Your task to perform on an android device: toggle show notifications on the lock screen Image 0: 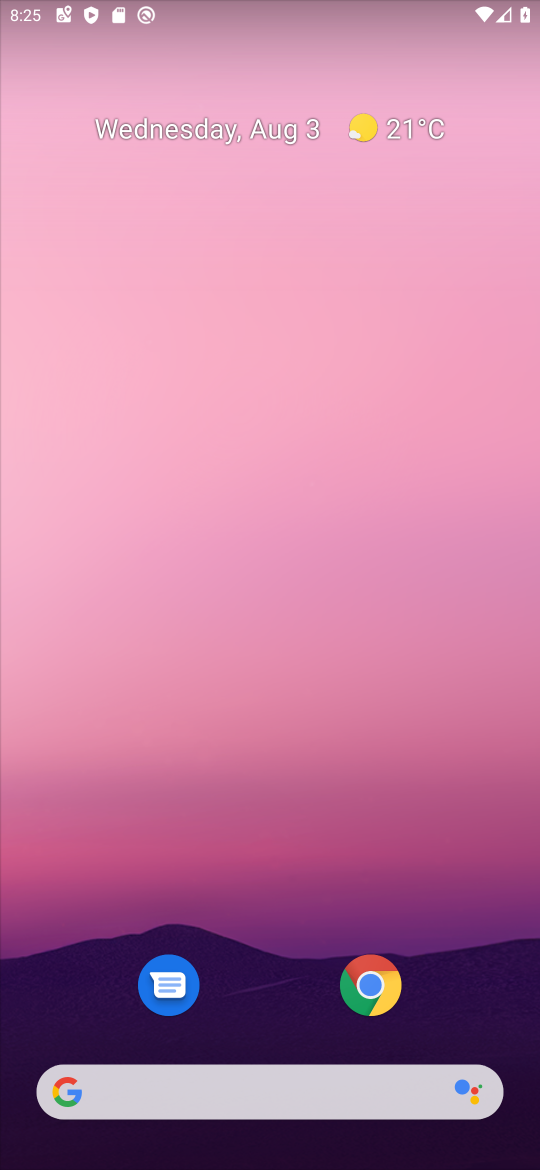
Step 0: drag from (263, 934) to (281, 434)
Your task to perform on an android device: toggle show notifications on the lock screen Image 1: 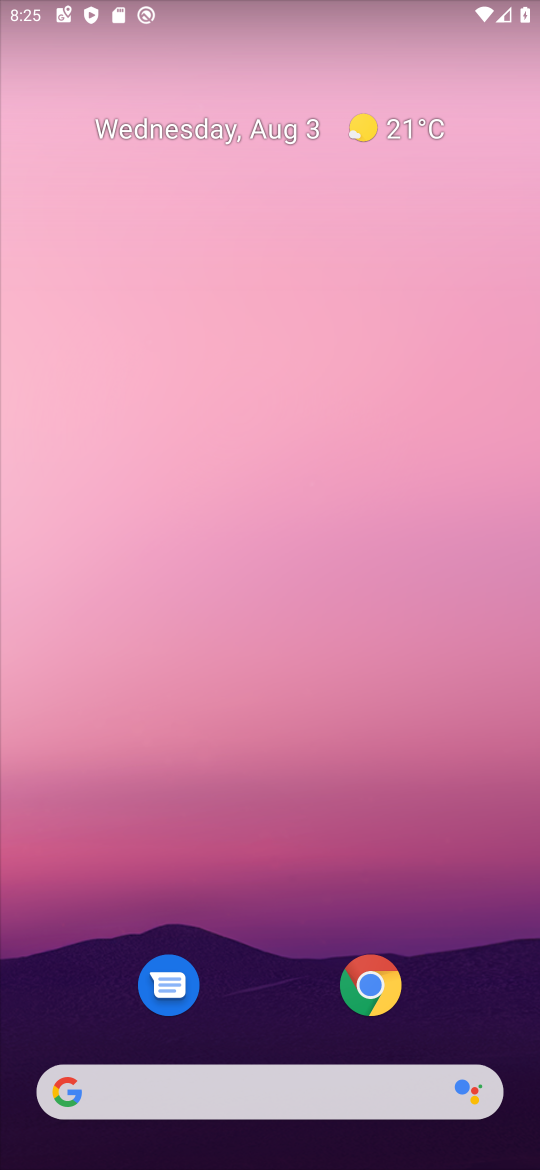
Step 1: drag from (255, 931) to (187, 81)
Your task to perform on an android device: toggle show notifications on the lock screen Image 2: 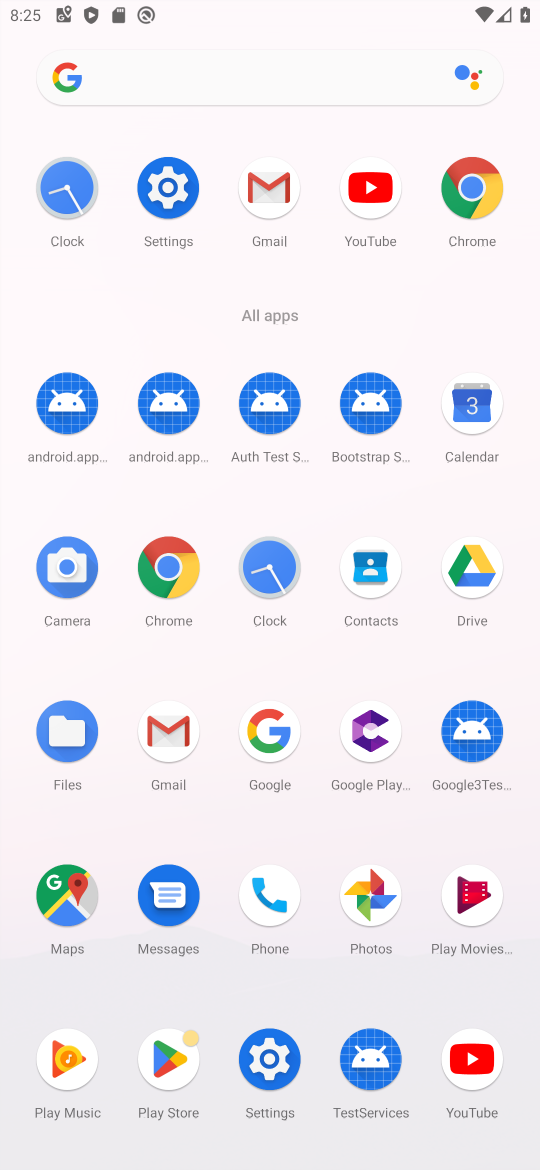
Step 2: click (177, 169)
Your task to perform on an android device: toggle show notifications on the lock screen Image 3: 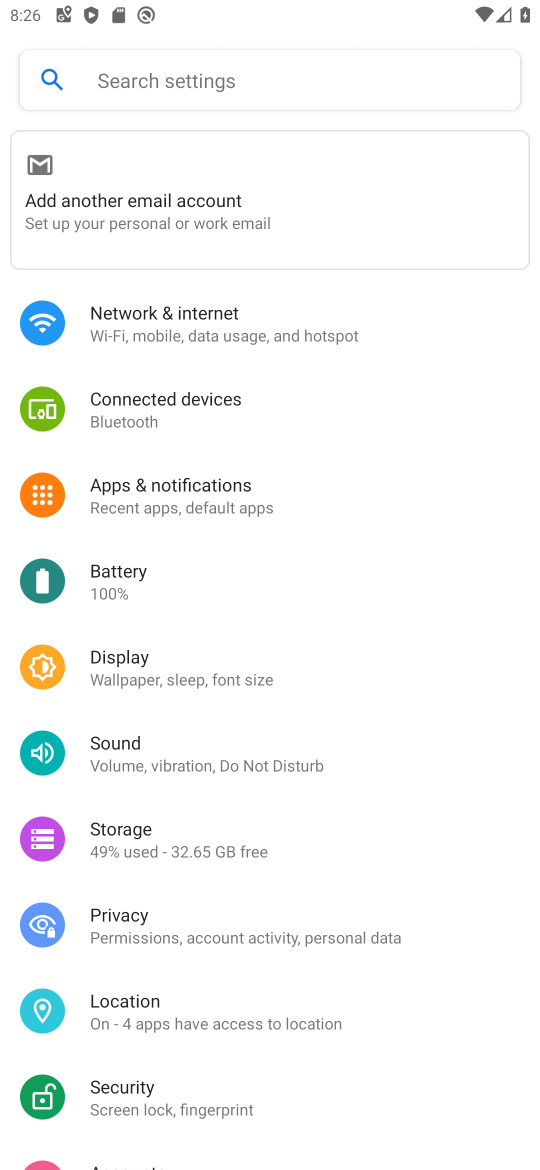
Step 3: click (238, 506)
Your task to perform on an android device: toggle show notifications on the lock screen Image 4: 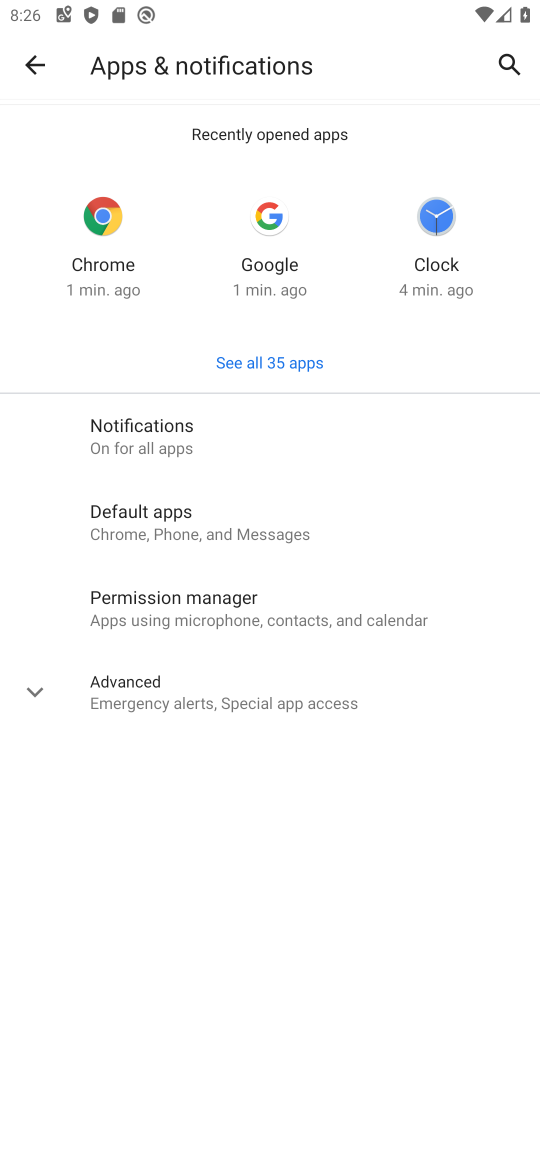
Step 4: click (161, 431)
Your task to perform on an android device: toggle show notifications on the lock screen Image 5: 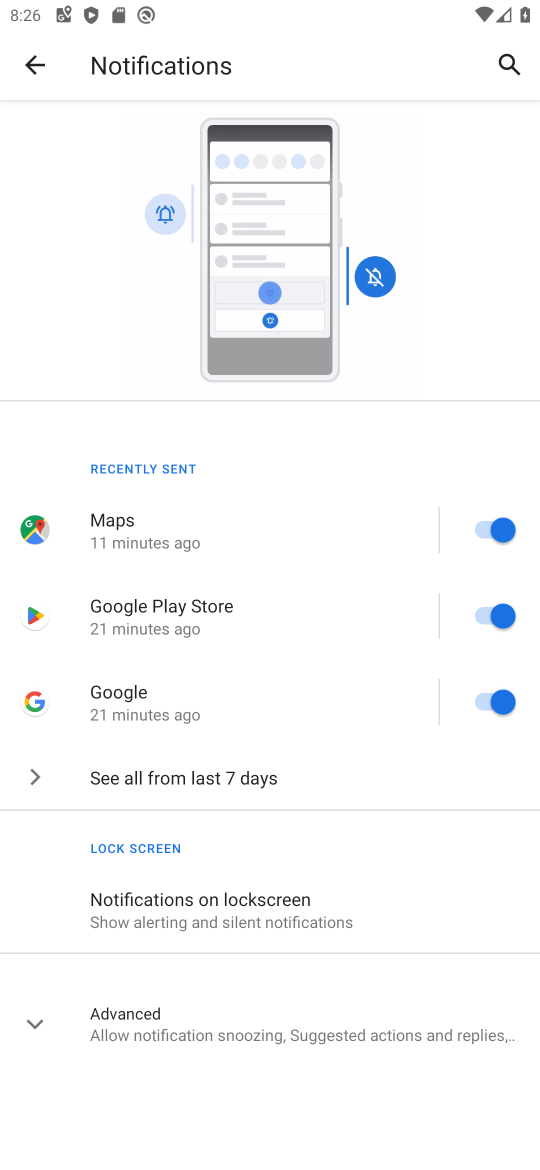
Step 5: click (286, 924)
Your task to perform on an android device: toggle show notifications on the lock screen Image 6: 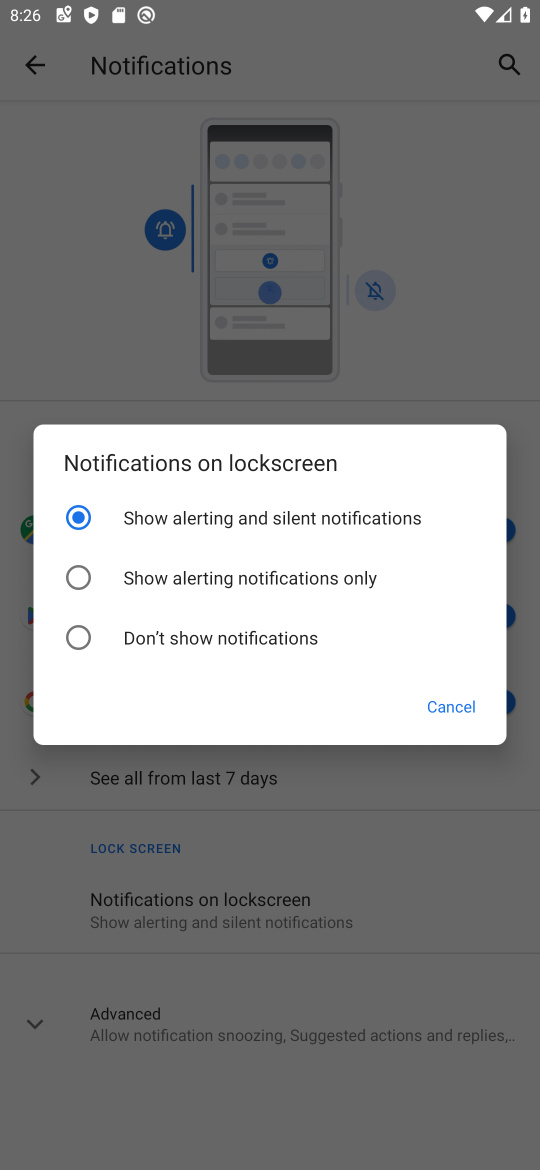
Step 6: click (186, 652)
Your task to perform on an android device: toggle show notifications on the lock screen Image 7: 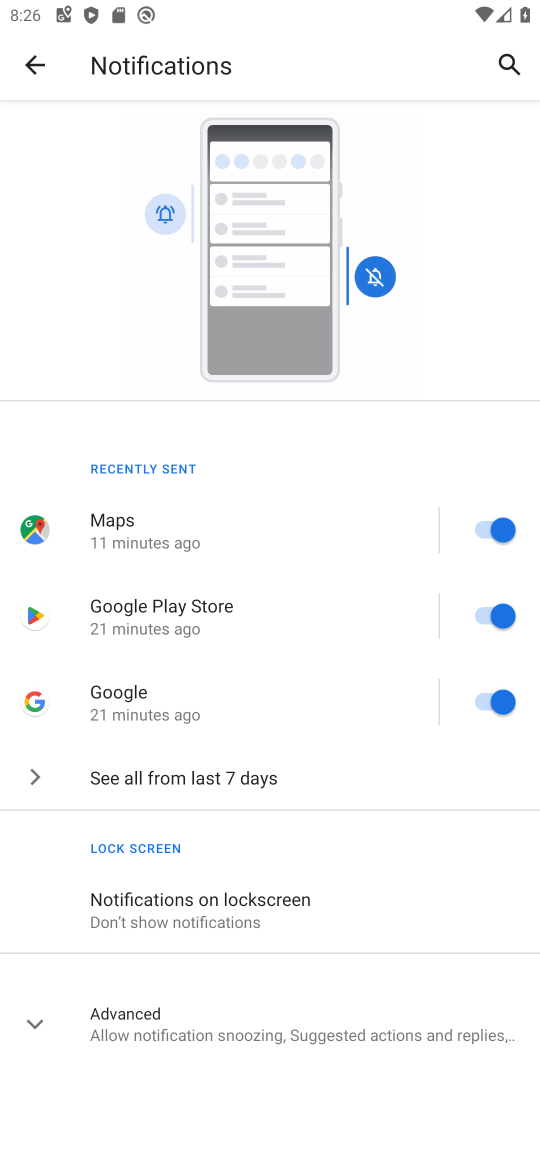
Step 7: task complete